Your task to perform on an android device: turn on the 24-hour format for clock Image 0: 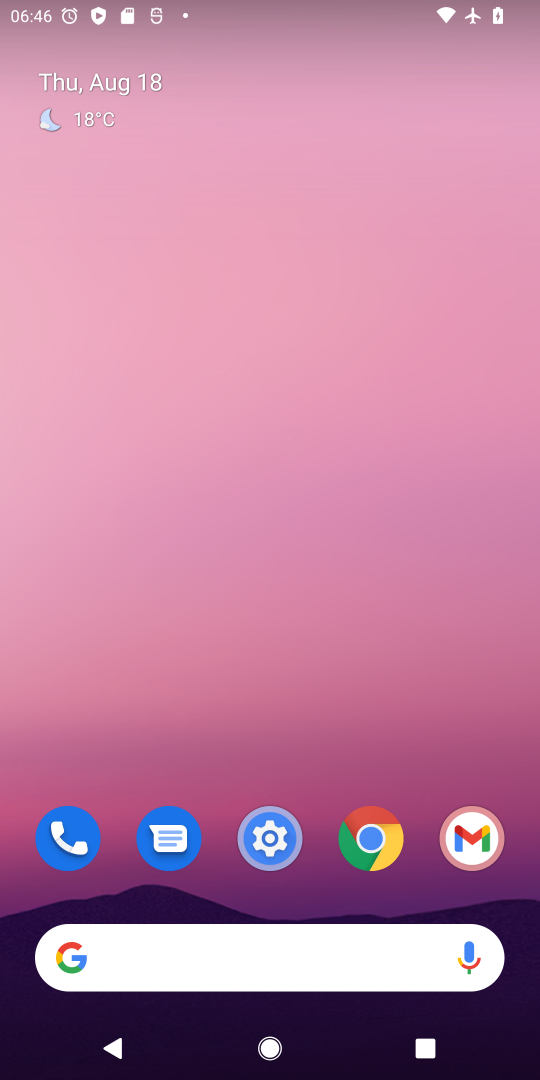
Step 0: press home button
Your task to perform on an android device: turn on the 24-hour format for clock Image 1: 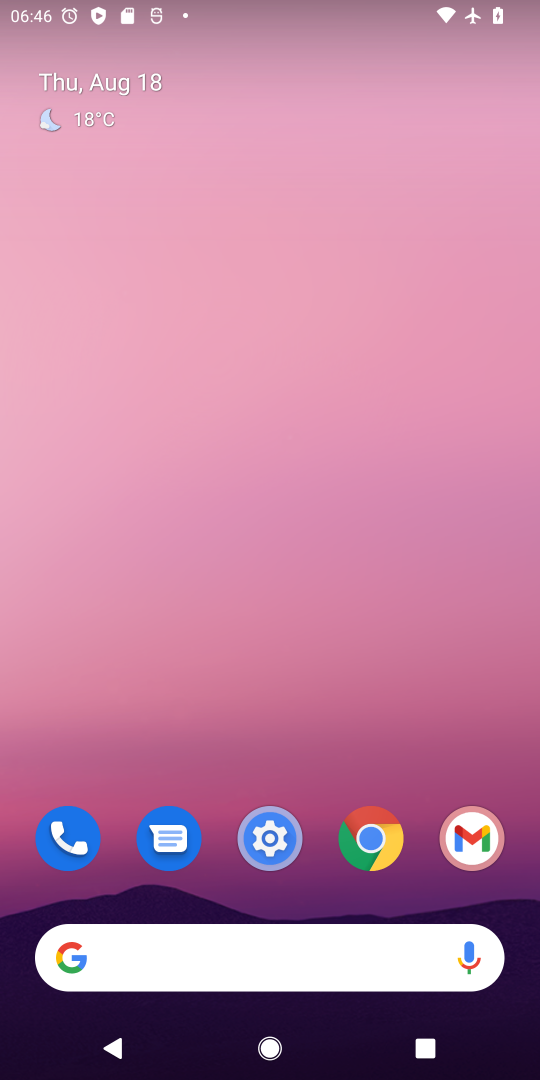
Step 1: click (274, 847)
Your task to perform on an android device: turn on the 24-hour format for clock Image 2: 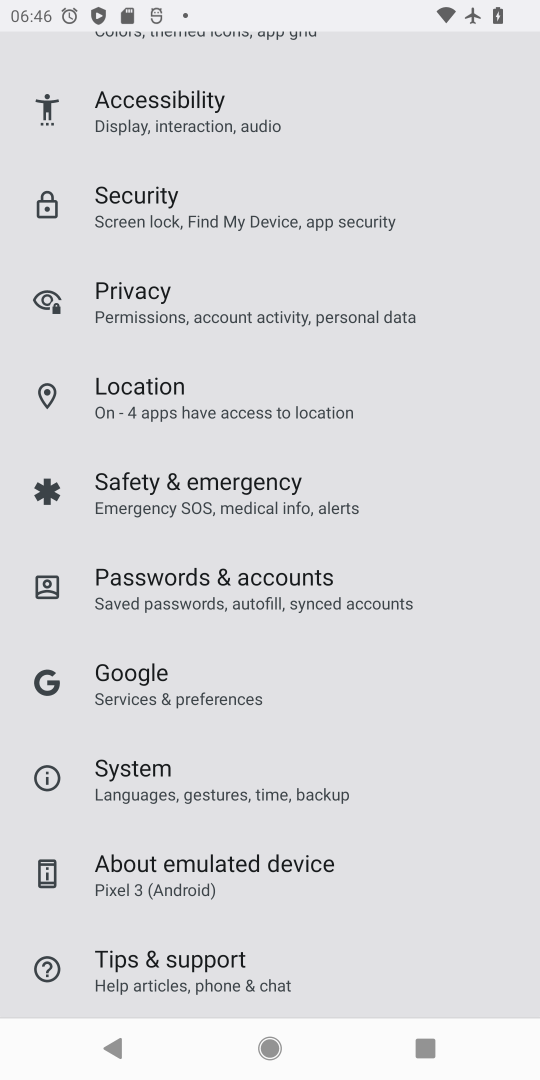
Step 2: click (150, 773)
Your task to perform on an android device: turn on the 24-hour format for clock Image 3: 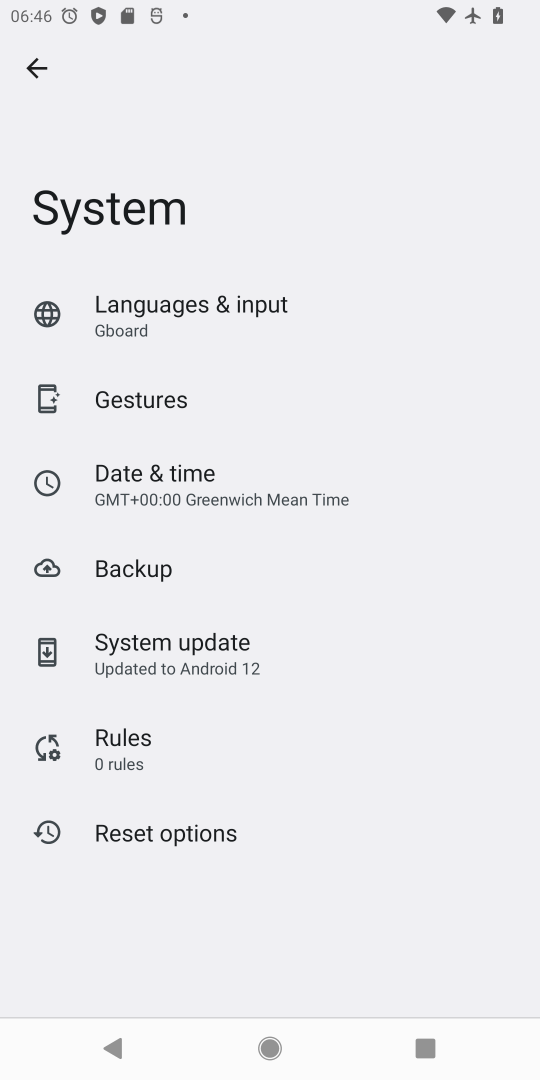
Step 3: click (159, 494)
Your task to perform on an android device: turn on the 24-hour format for clock Image 4: 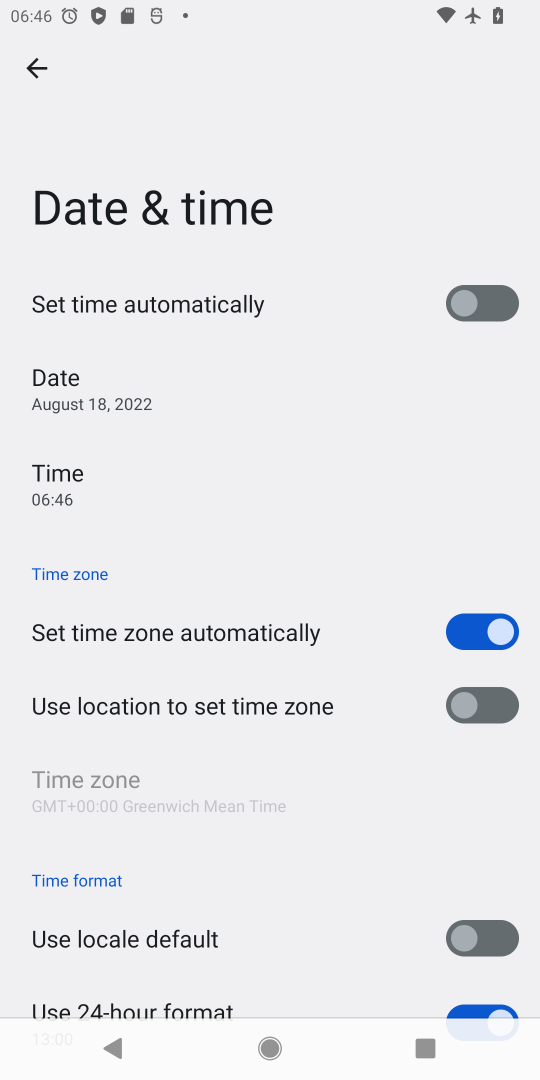
Step 4: task complete